Your task to perform on an android device: Search for Mexican restaurants on Maps Image 0: 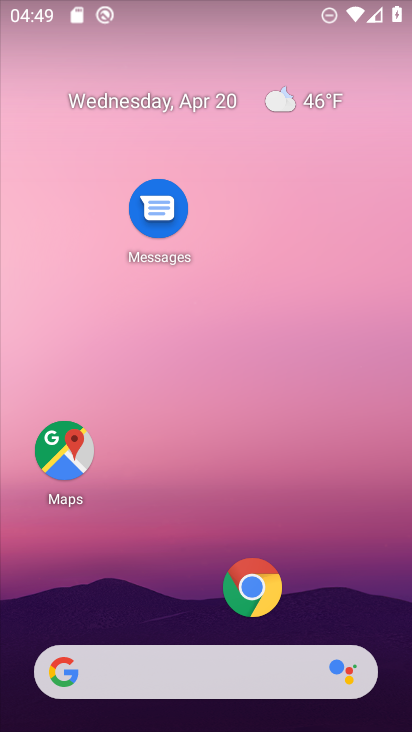
Step 0: click (51, 460)
Your task to perform on an android device: Search for Mexican restaurants on Maps Image 1: 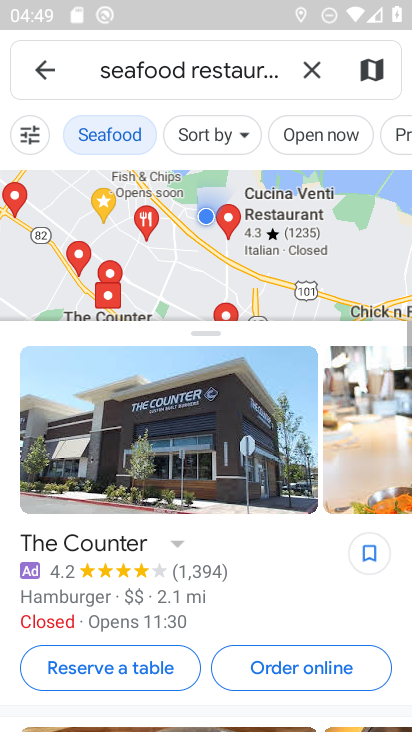
Step 1: click (295, 68)
Your task to perform on an android device: Search for Mexican restaurants on Maps Image 2: 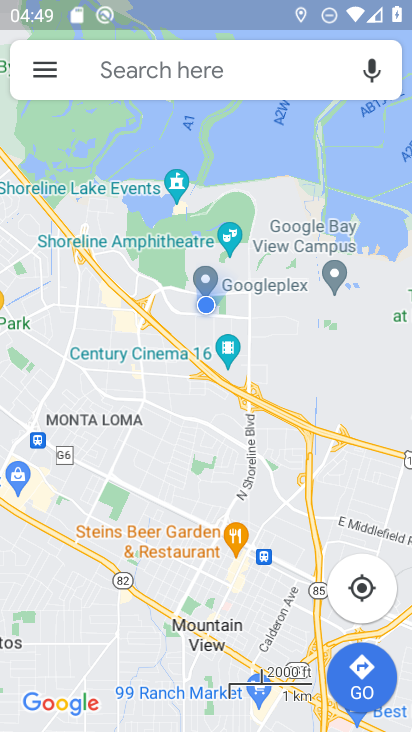
Step 2: click (199, 63)
Your task to perform on an android device: Search for Mexican restaurants on Maps Image 3: 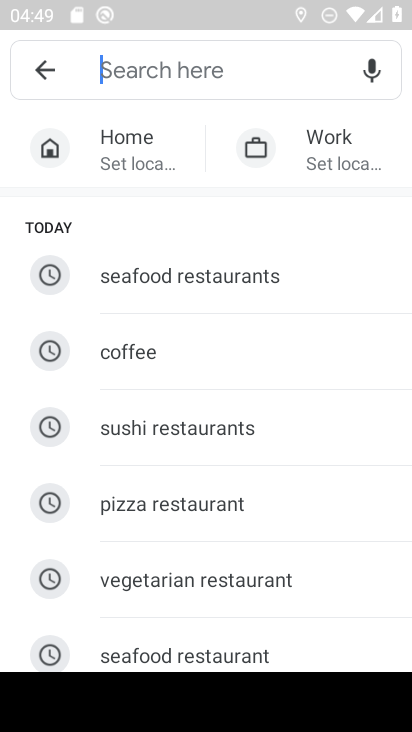
Step 3: type "Mexican restaurants"
Your task to perform on an android device: Search for Mexican restaurants on Maps Image 4: 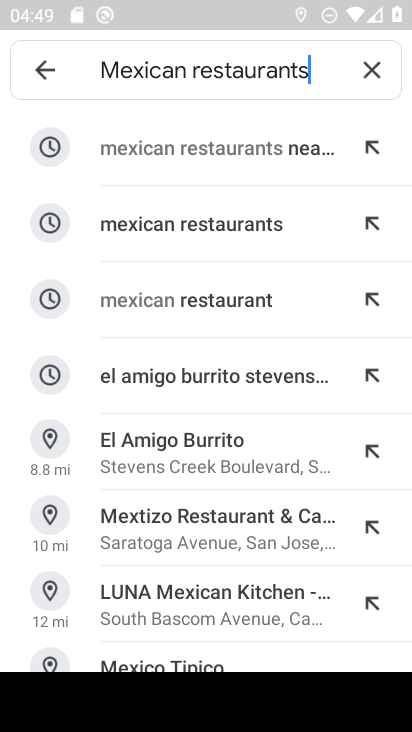
Step 4: click (237, 222)
Your task to perform on an android device: Search for Mexican restaurants on Maps Image 5: 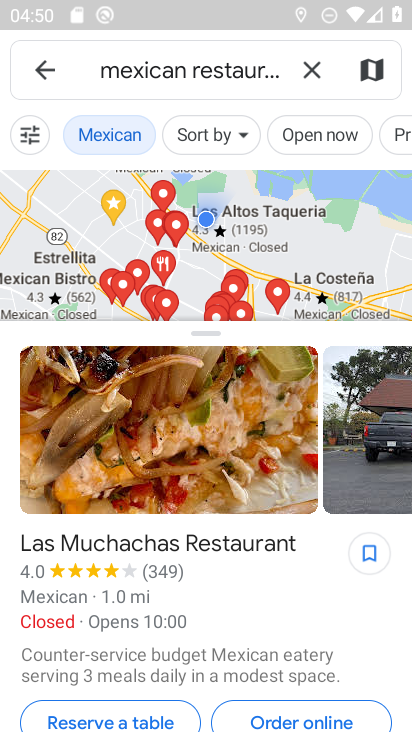
Step 5: task complete